Your task to perform on an android device: turn off priority inbox in the gmail app Image 0: 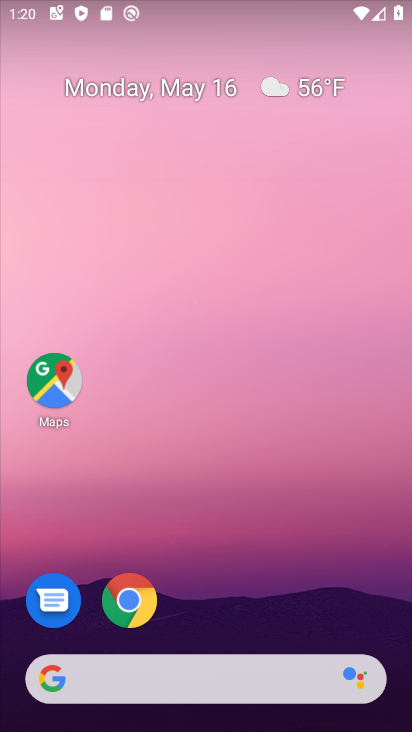
Step 0: drag from (274, 620) to (260, 176)
Your task to perform on an android device: turn off priority inbox in the gmail app Image 1: 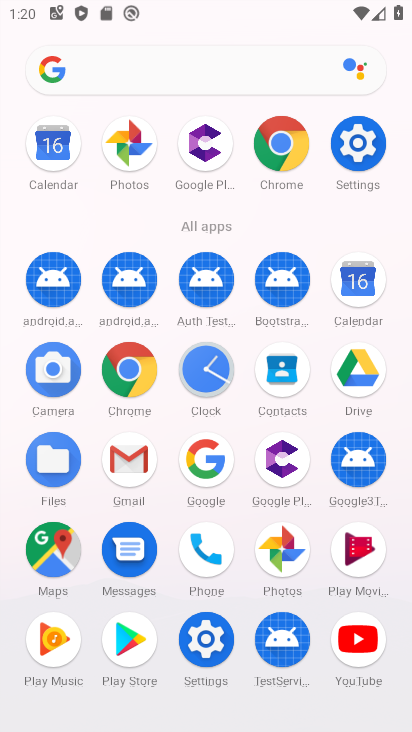
Step 1: click (135, 449)
Your task to perform on an android device: turn off priority inbox in the gmail app Image 2: 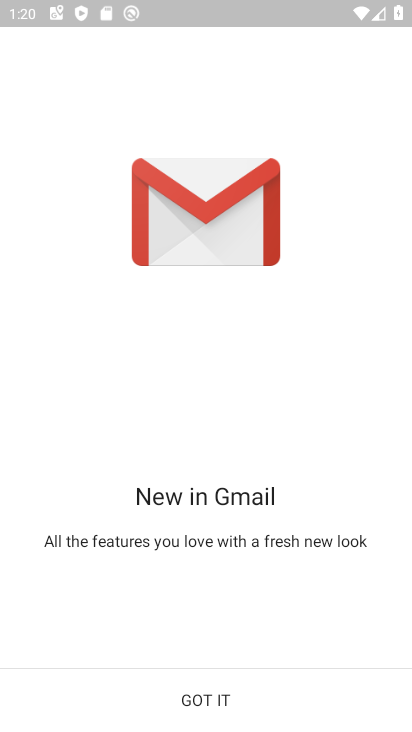
Step 2: click (251, 698)
Your task to perform on an android device: turn off priority inbox in the gmail app Image 3: 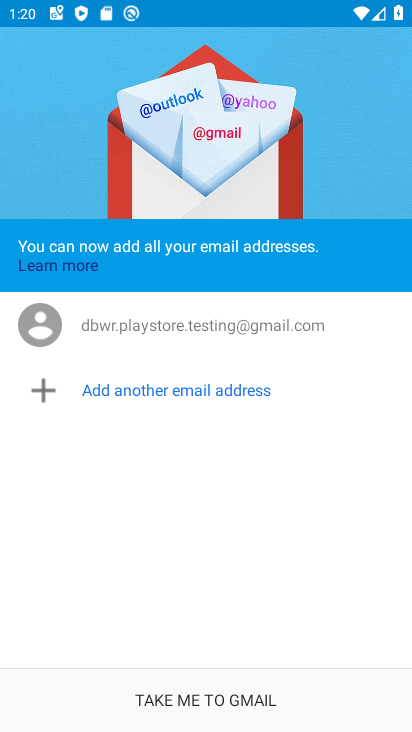
Step 3: click (207, 700)
Your task to perform on an android device: turn off priority inbox in the gmail app Image 4: 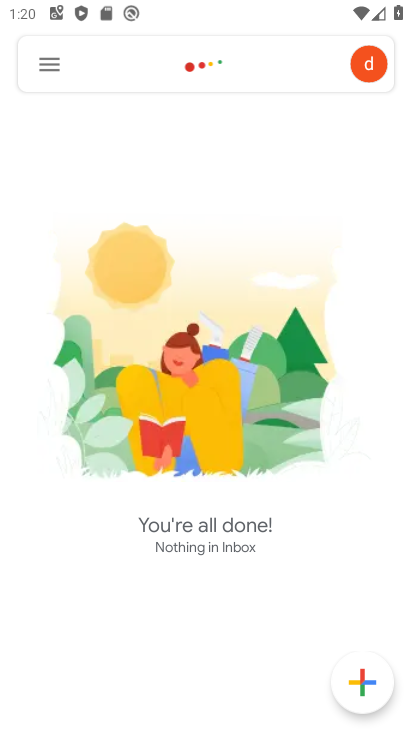
Step 4: click (33, 65)
Your task to perform on an android device: turn off priority inbox in the gmail app Image 5: 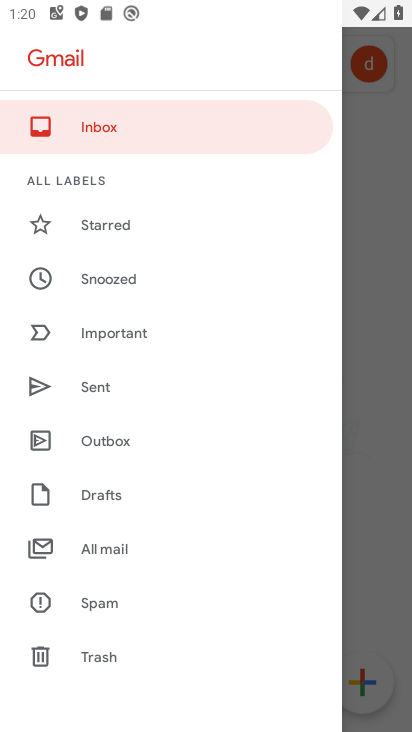
Step 5: drag from (196, 613) to (191, 243)
Your task to perform on an android device: turn off priority inbox in the gmail app Image 6: 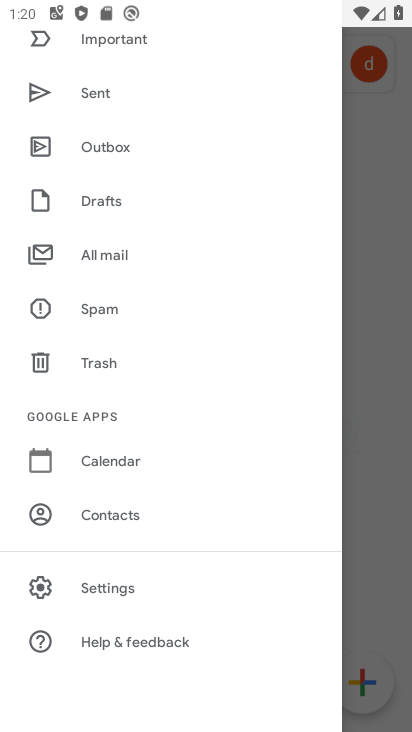
Step 6: click (157, 587)
Your task to perform on an android device: turn off priority inbox in the gmail app Image 7: 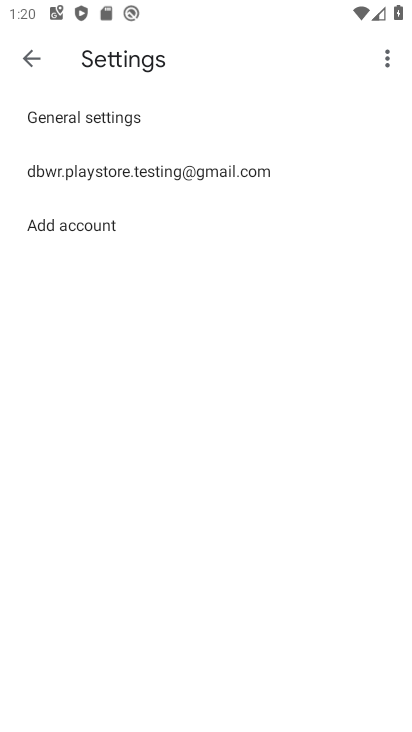
Step 7: click (74, 176)
Your task to perform on an android device: turn off priority inbox in the gmail app Image 8: 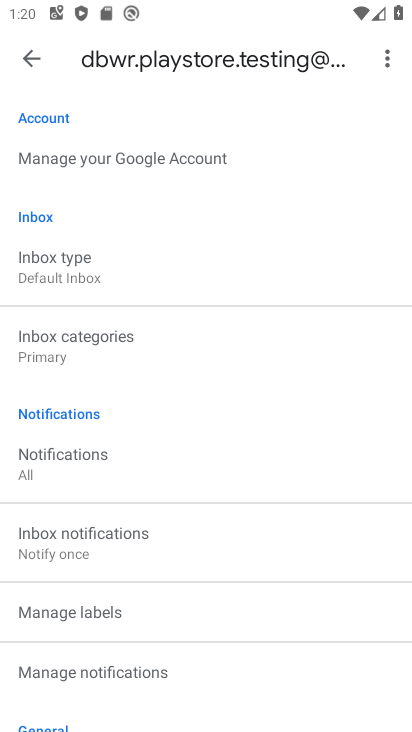
Step 8: task complete